Your task to perform on an android device: Open Reddit.com Image 0: 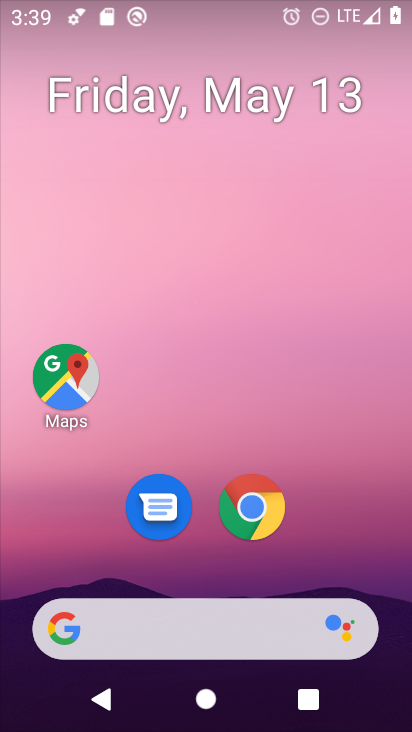
Step 0: click (245, 525)
Your task to perform on an android device: Open Reddit.com Image 1: 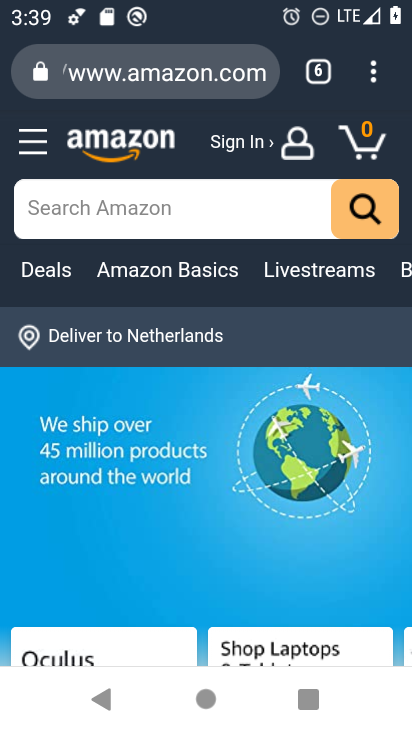
Step 1: click (202, 76)
Your task to perform on an android device: Open Reddit.com Image 2: 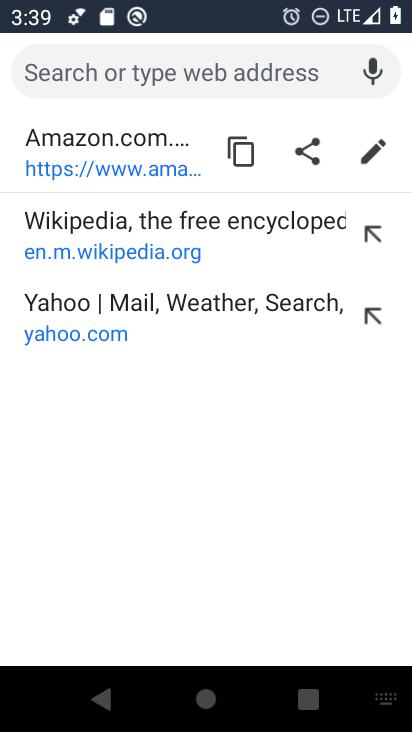
Step 2: type "Reddit.com"
Your task to perform on an android device: Open Reddit.com Image 3: 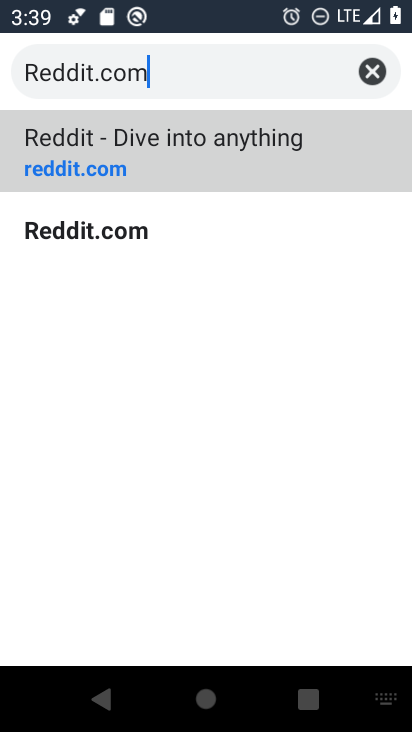
Step 3: click (163, 218)
Your task to perform on an android device: Open Reddit.com Image 4: 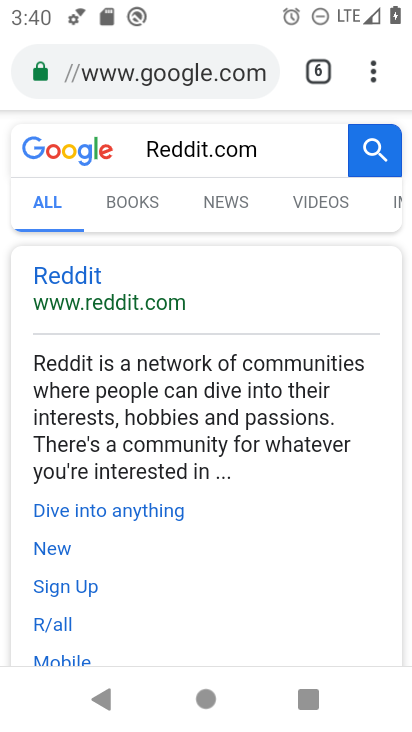
Step 4: drag from (218, 488) to (162, 72)
Your task to perform on an android device: Open Reddit.com Image 5: 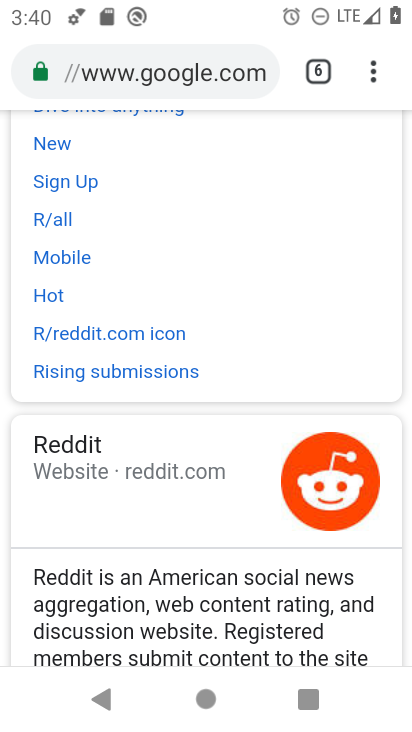
Step 5: drag from (157, 512) to (159, 154)
Your task to perform on an android device: Open Reddit.com Image 6: 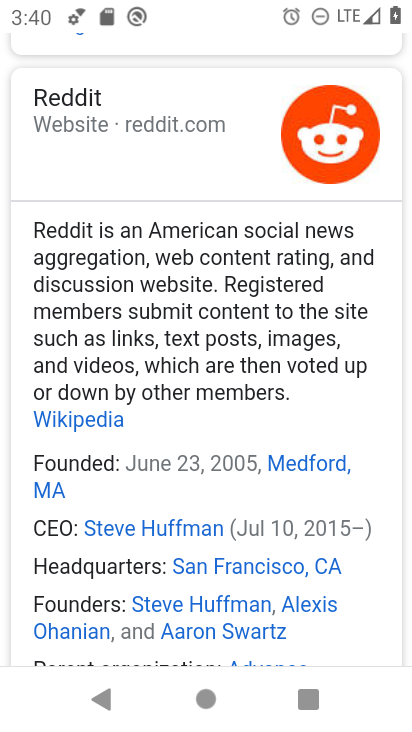
Step 6: drag from (227, 480) to (188, 136)
Your task to perform on an android device: Open Reddit.com Image 7: 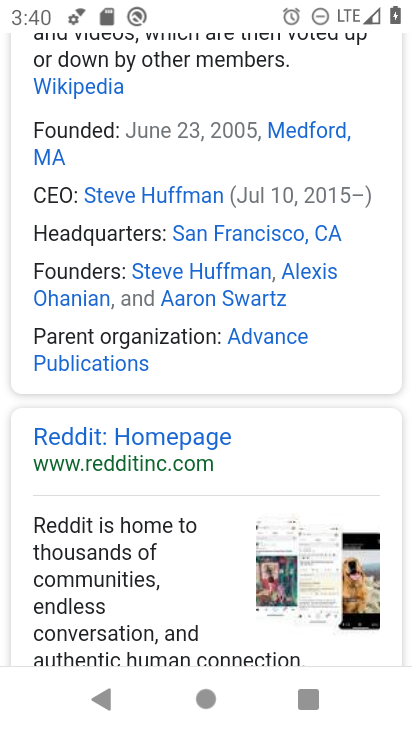
Step 7: drag from (133, 582) to (132, 156)
Your task to perform on an android device: Open Reddit.com Image 8: 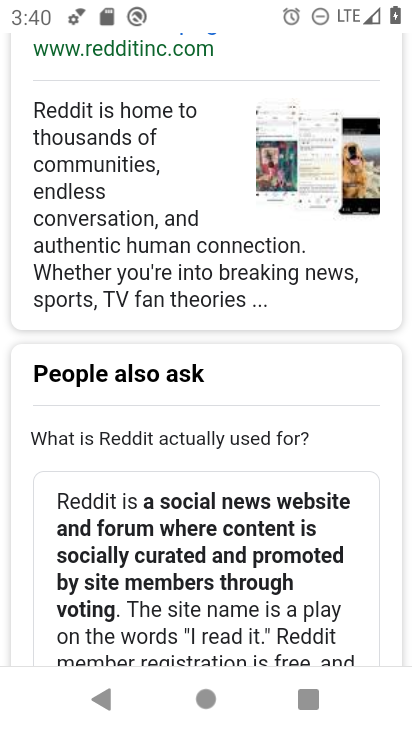
Step 8: drag from (213, 276) to (225, 591)
Your task to perform on an android device: Open Reddit.com Image 9: 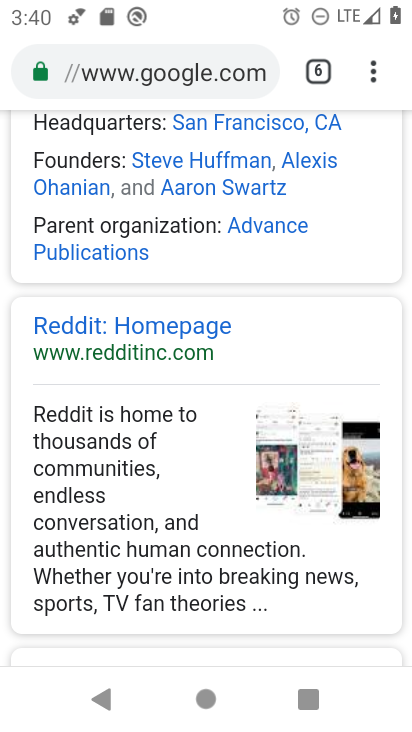
Step 9: drag from (268, 180) to (236, 529)
Your task to perform on an android device: Open Reddit.com Image 10: 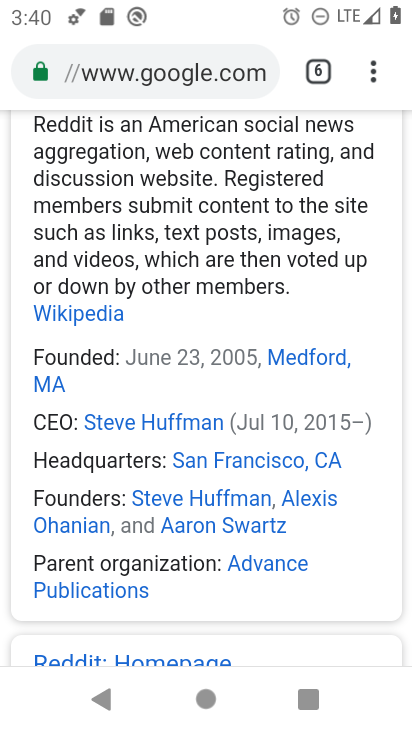
Step 10: drag from (202, 249) to (180, 547)
Your task to perform on an android device: Open Reddit.com Image 11: 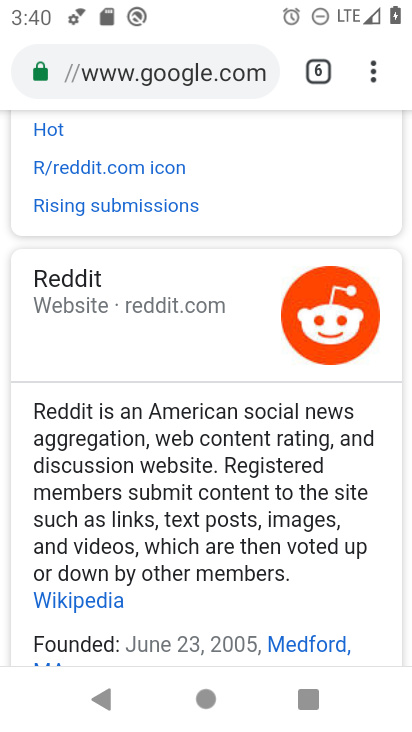
Step 11: click (116, 285)
Your task to perform on an android device: Open Reddit.com Image 12: 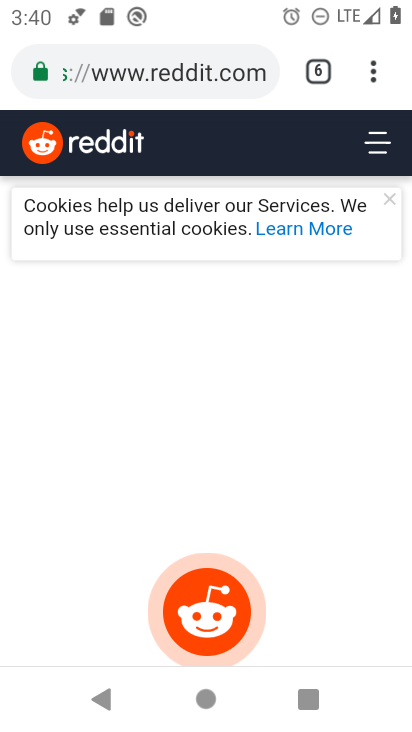
Step 12: task complete